Your task to perform on an android device: Open Amazon Image 0: 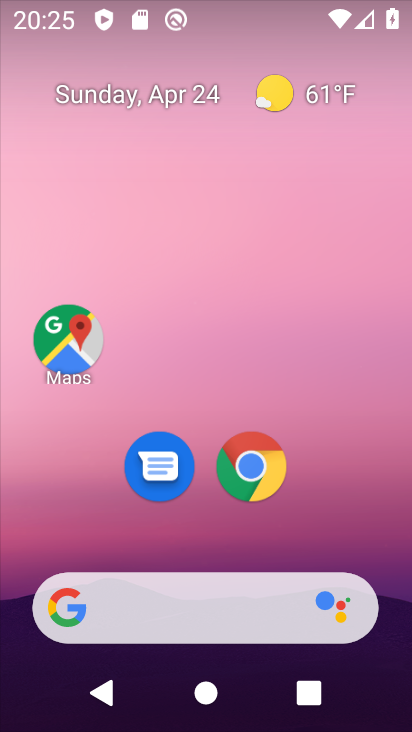
Step 0: click (267, 465)
Your task to perform on an android device: Open Amazon Image 1: 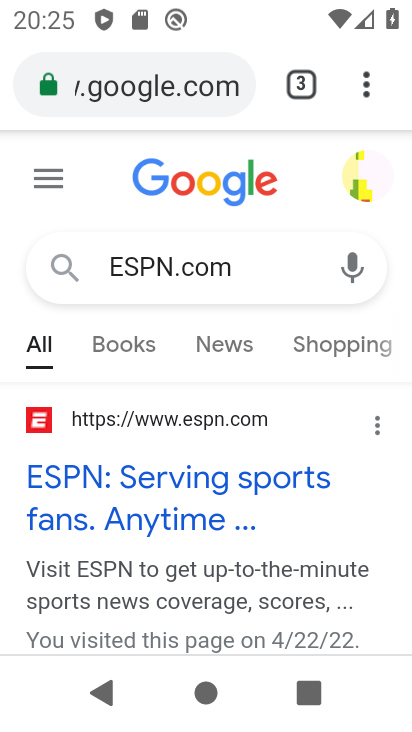
Step 1: click (177, 93)
Your task to perform on an android device: Open Amazon Image 2: 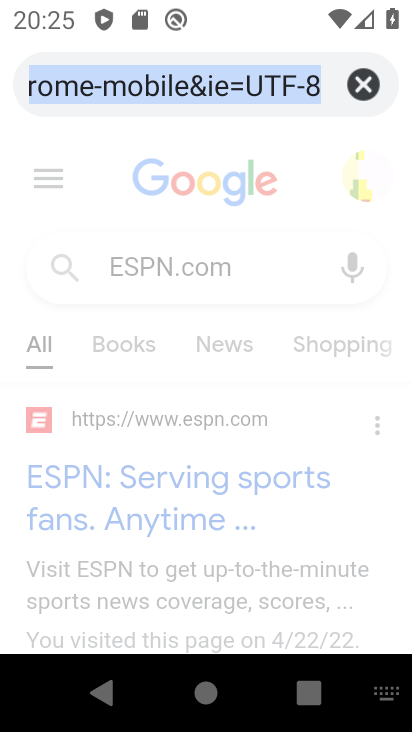
Step 2: type "Amazon"
Your task to perform on an android device: Open Amazon Image 3: 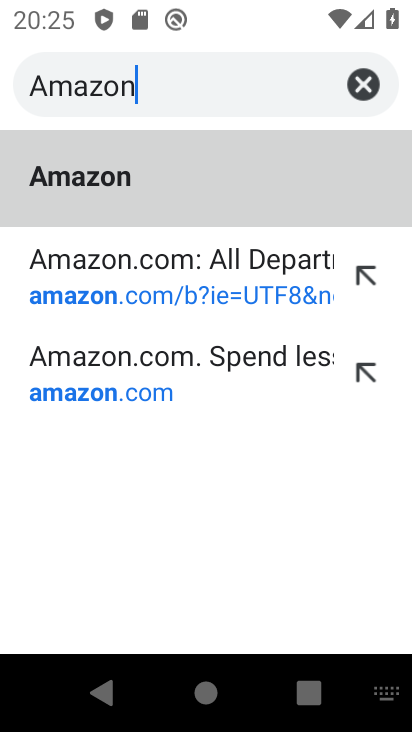
Step 3: click (157, 183)
Your task to perform on an android device: Open Amazon Image 4: 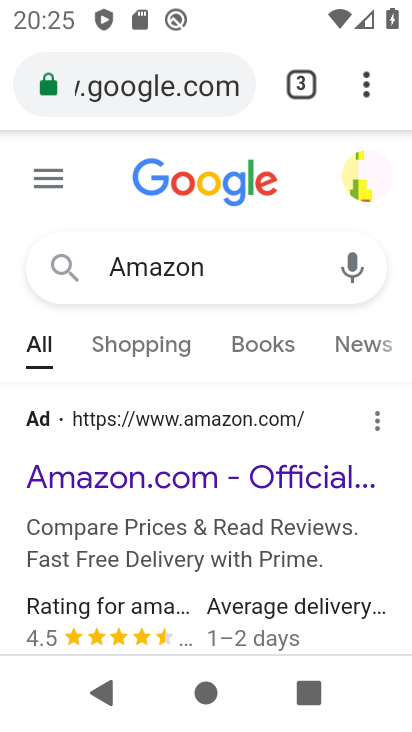
Step 4: task complete